Your task to perform on an android device: turn on priority inbox in the gmail app Image 0: 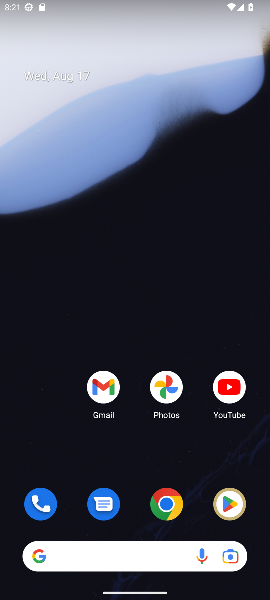
Step 0: drag from (129, 329) to (123, 58)
Your task to perform on an android device: turn on priority inbox in the gmail app Image 1: 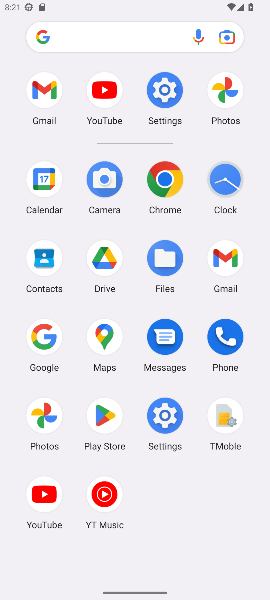
Step 1: click (226, 269)
Your task to perform on an android device: turn on priority inbox in the gmail app Image 2: 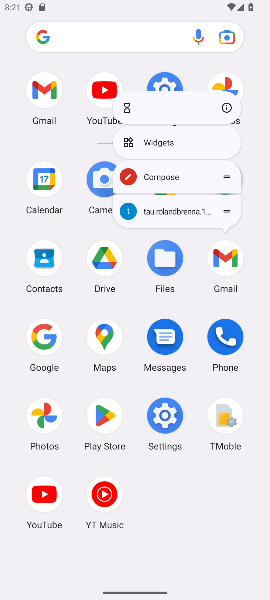
Step 2: click (226, 256)
Your task to perform on an android device: turn on priority inbox in the gmail app Image 3: 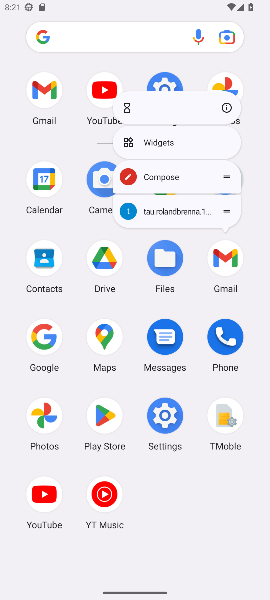
Step 3: task complete